Your task to perform on an android device: turn off wifi Image 0: 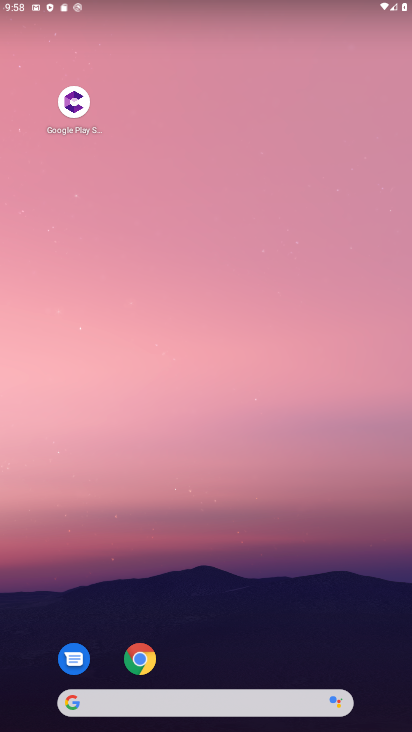
Step 0: drag from (249, 622) to (261, 282)
Your task to perform on an android device: turn off wifi Image 1: 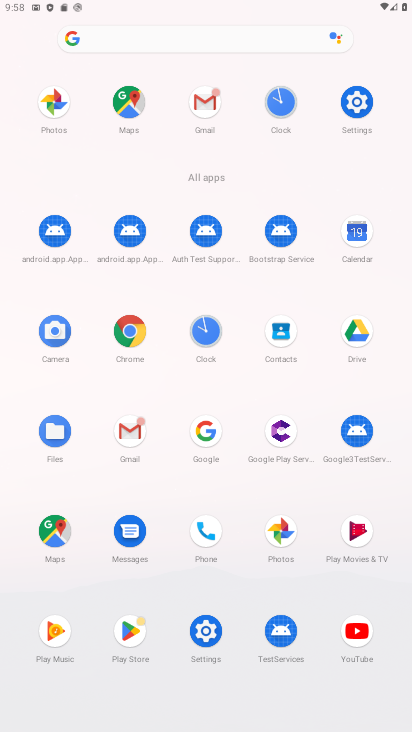
Step 1: click (209, 636)
Your task to perform on an android device: turn off wifi Image 2: 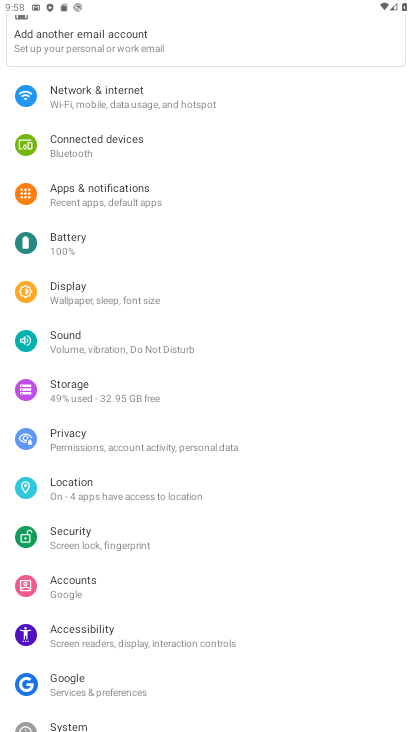
Step 2: click (100, 100)
Your task to perform on an android device: turn off wifi Image 3: 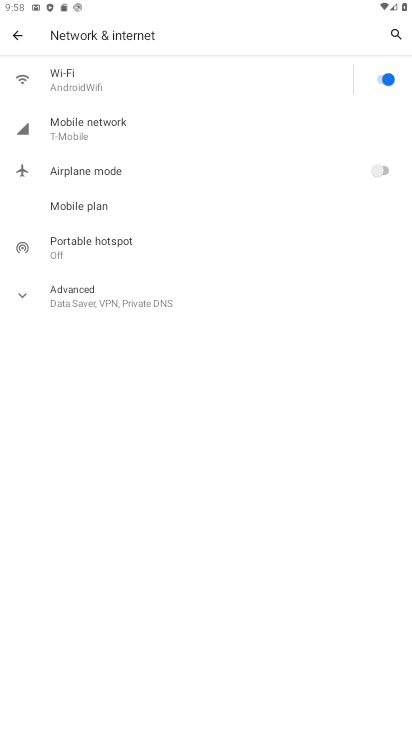
Step 3: click (387, 79)
Your task to perform on an android device: turn off wifi Image 4: 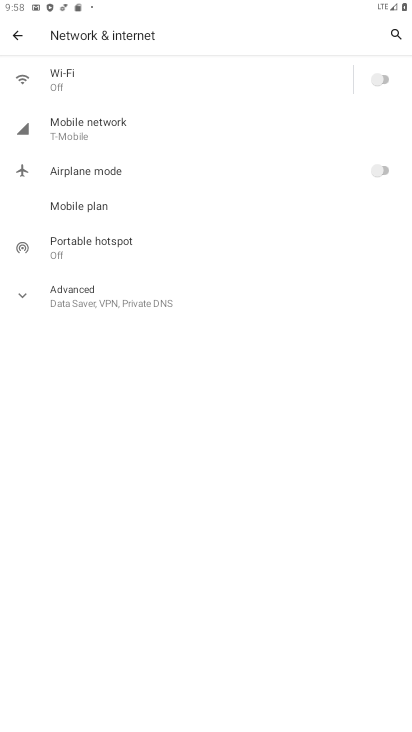
Step 4: task complete